Your task to perform on an android device: toggle show notifications on the lock screen Image 0: 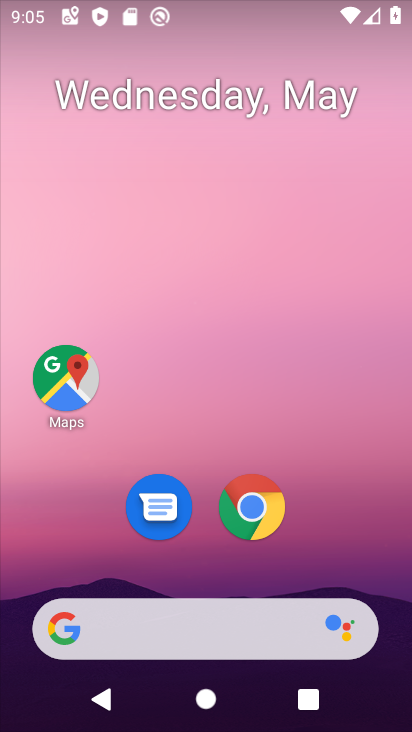
Step 0: drag from (362, 556) to (316, 154)
Your task to perform on an android device: toggle show notifications on the lock screen Image 1: 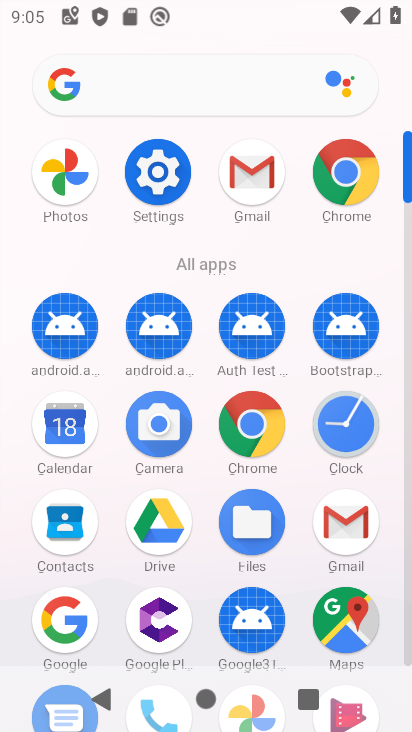
Step 1: click (166, 177)
Your task to perform on an android device: toggle show notifications on the lock screen Image 2: 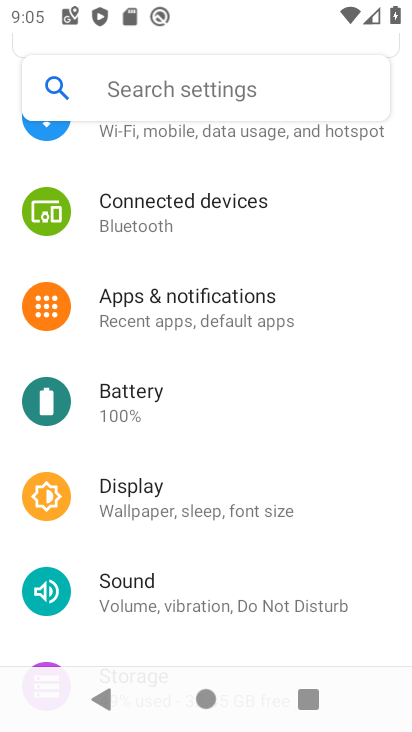
Step 2: drag from (286, 571) to (288, 332)
Your task to perform on an android device: toggle show notifications on the lock screen Image 3: 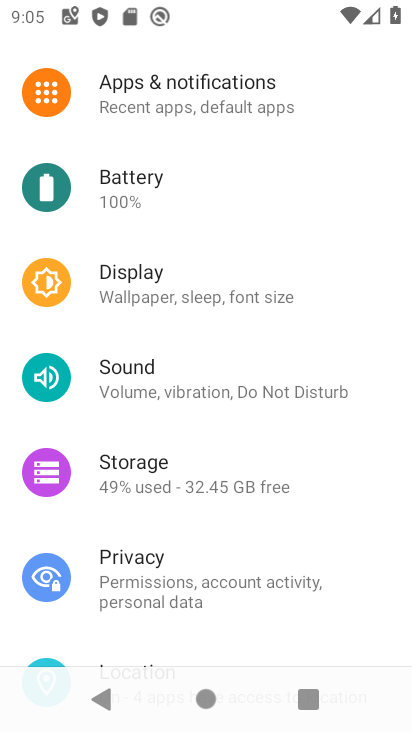
Step 3: click (241, 95)
Your task to perform on an android device: toggle show notifications on the lock screen Image 4: 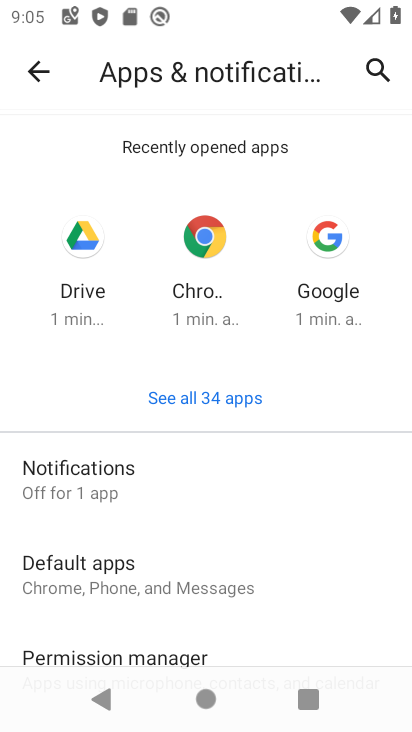
Step 4: click (231, 475)
Your task to perform on an android device: toggle show notifications on the lock screen Image 5: 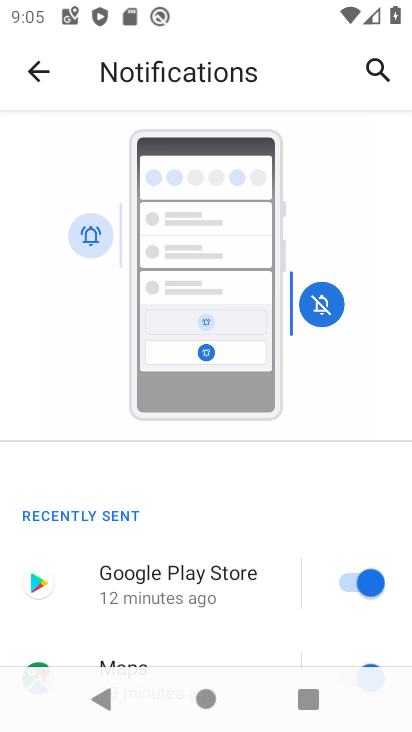
Step 5: drag from (252, 656) to (248, 127)
Your task to perform on an android device: toggle show notifications on the lock screen Image 6: 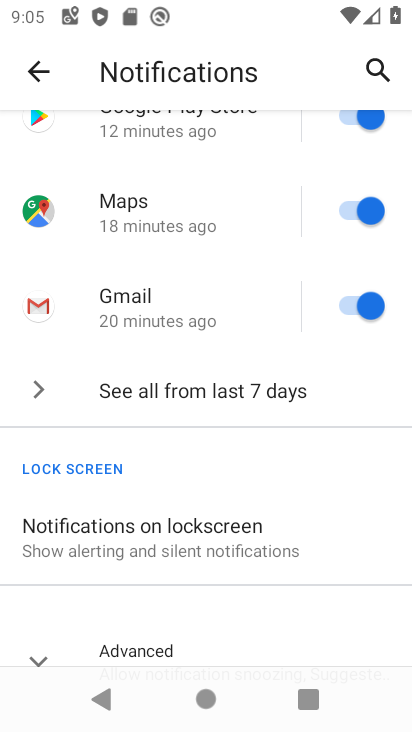
Step 6: click (266, 566)
Your task to perform on an android device: toggle show notifications on the lock screen Image 7: 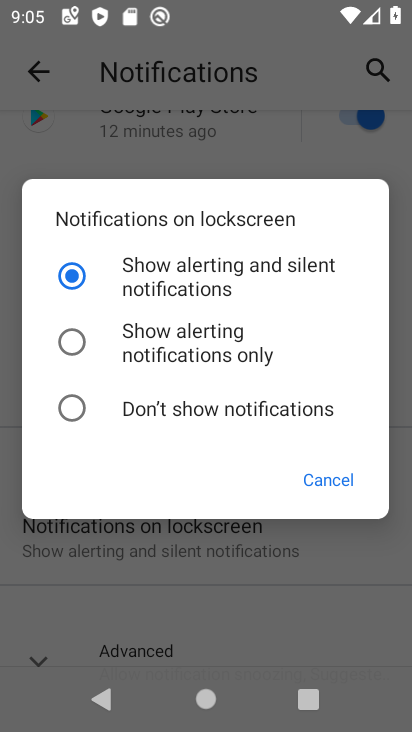
Step 7: click (228, 368)
Your task to perform on an android device: toggle show notifications on the lock screen Image 8: 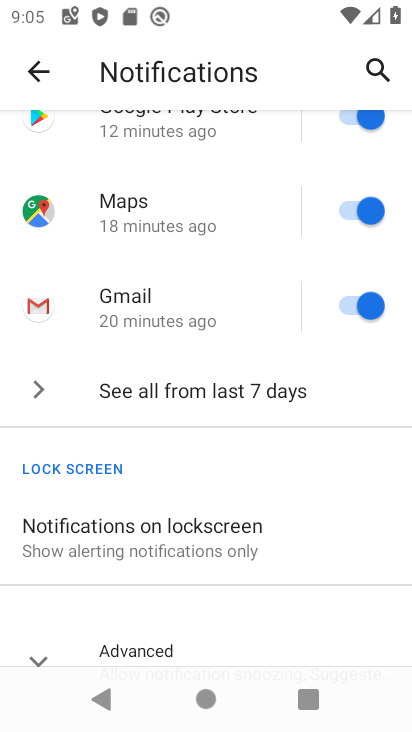
Step 8: task complete